Your task to perform on an android device: Go to network settings Image 0: 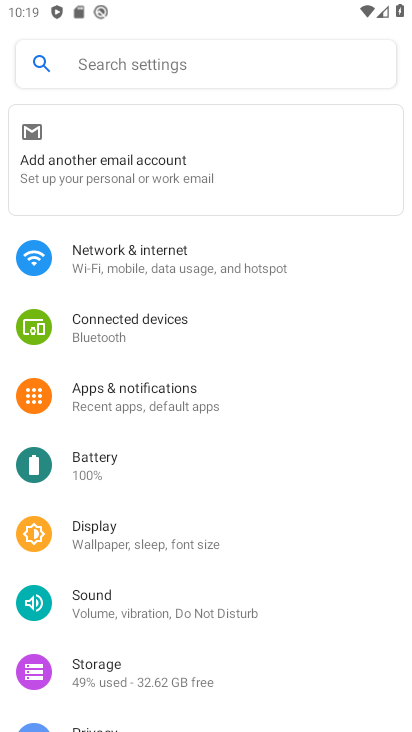
Step 0: press home button
Your task to perform on an android device: Go to network settings Image 1: 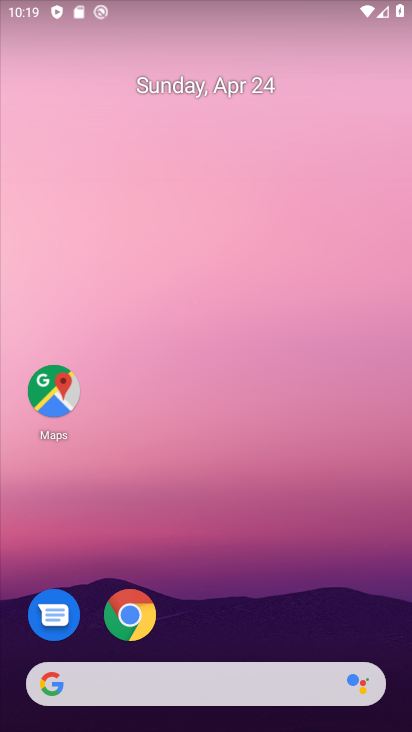
Step 1: drag from (197, 614) to (218, 95)
Your task to perform on an android device: Go to network settings Image 2: 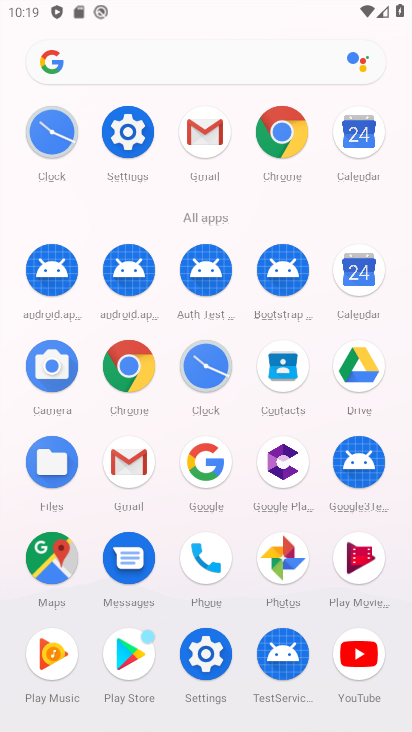
Step 2: click (129, 132)
Your task to perform on an android device: Go to network settings Image 3: 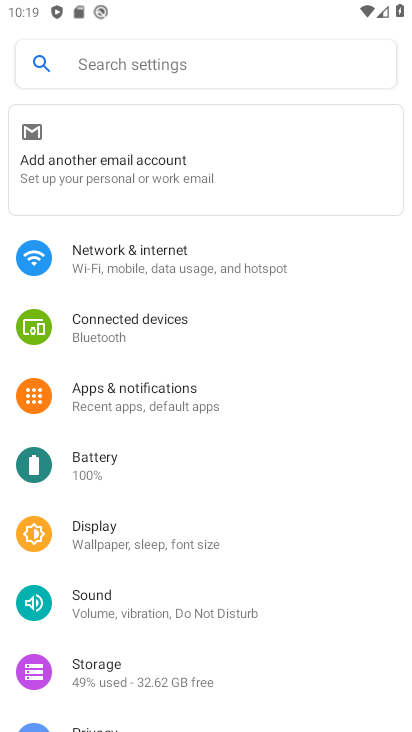
Step 3: click (151, 253)
Your task to perform on an android device: Go to network settings Image 4: 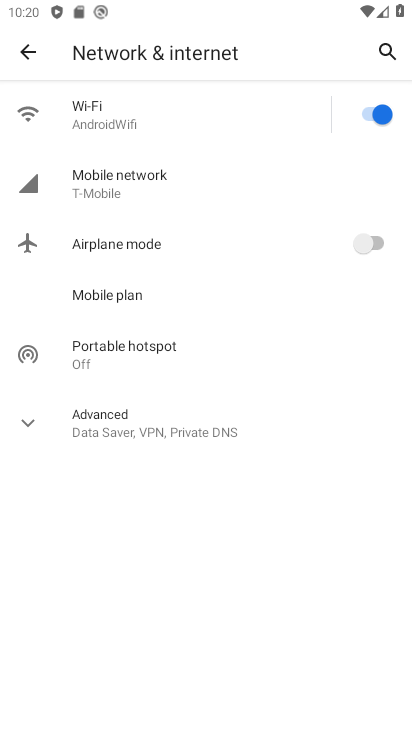
Step 4: click (31, 418)
Your task to perform on an android device: Go to network settings Image 5: 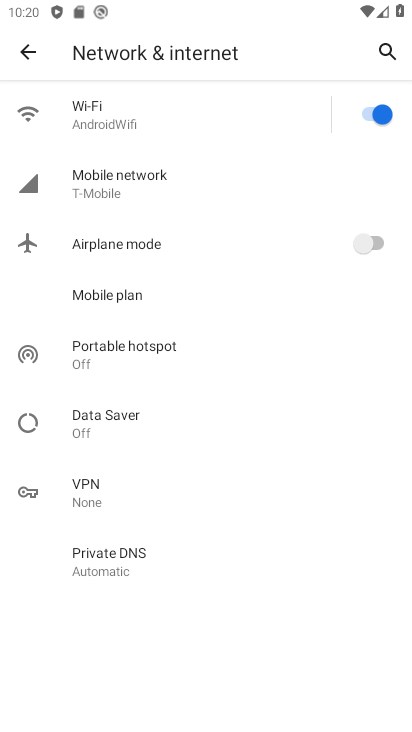
Step 5: task complete